Your task to perform on an android device: turn on translation in the chrome app Image 0: 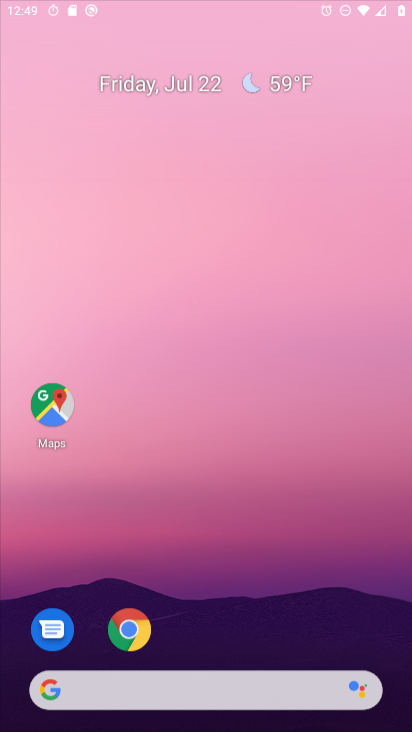
Step 0: press home button
Your task to perform on an android device: turn on translation in the chrome app Image 1: 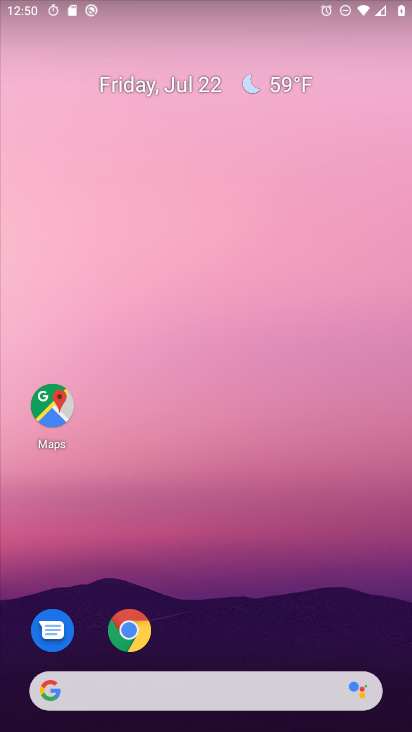
Step 1: drag from (219, 651) to (167, 170)
Your task to perform on an android device: turn on translation in the chrome app Image 2: 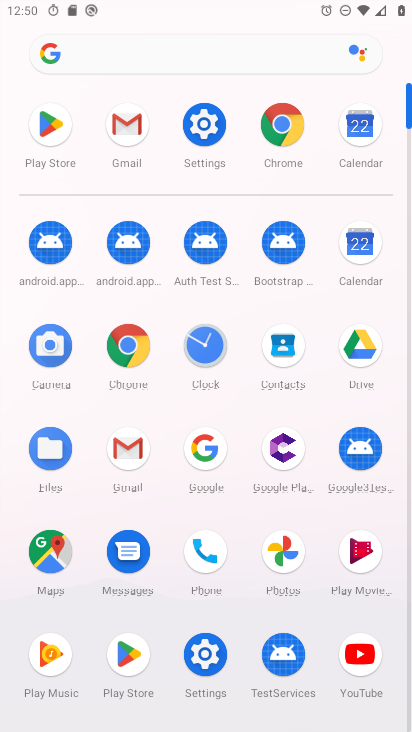
Step 2: click (294, 121)
Your task to perform on an android device: turn on translation in the chrome app Image 3: 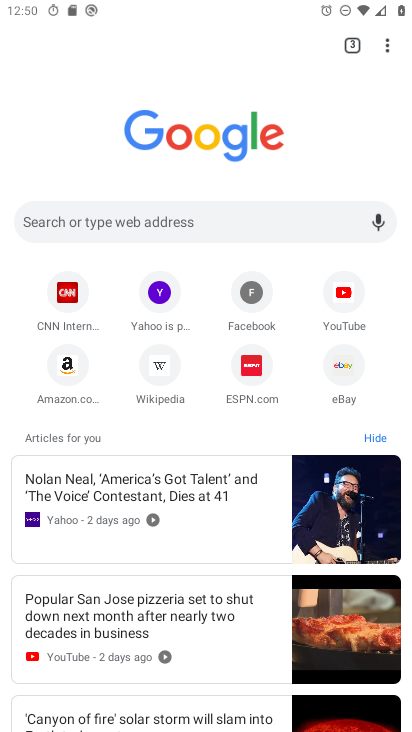
Step 3: drag from (391, 52) to (193, 430)
Your task to perform on an android device: turn on translation in the chrome app Image 4: 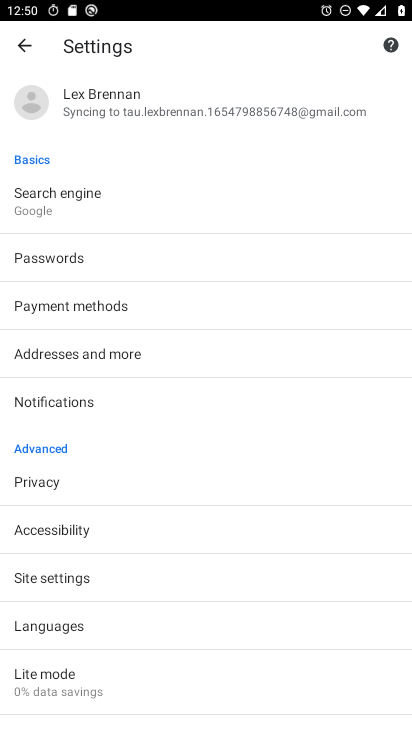
Step 4: click (38, 625)
Your task to perform on an android device: turn on translation in the chrome app Image 5: 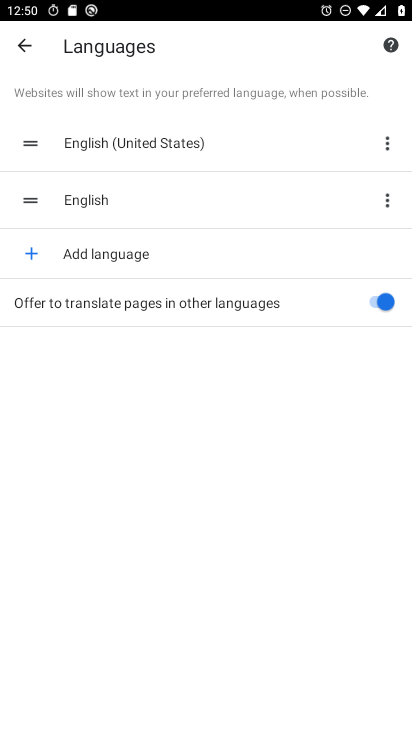
Step 5: task complete